Your task to perform on an android device: Go to Wikipedia Image 0: 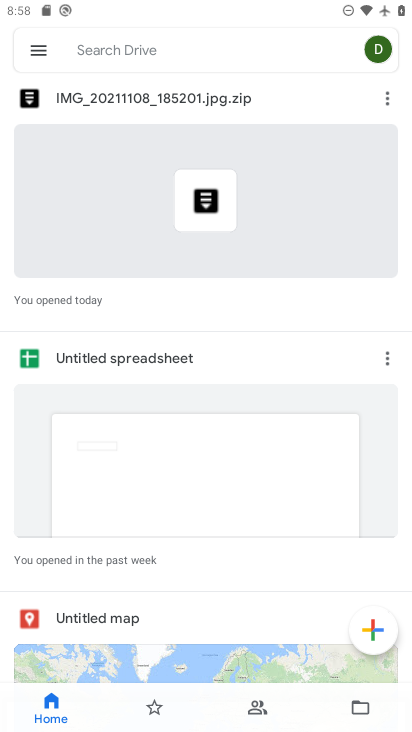
Step 0: press home button
Your task to perform on an android device: Go to Wikipedia Image 1: 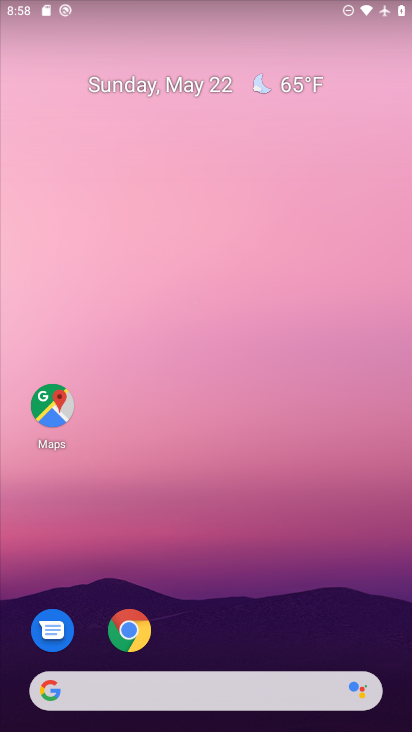
Step 1: click (138, 627)
Your task to perform on an android device: Go to Wikipedia Image 2: 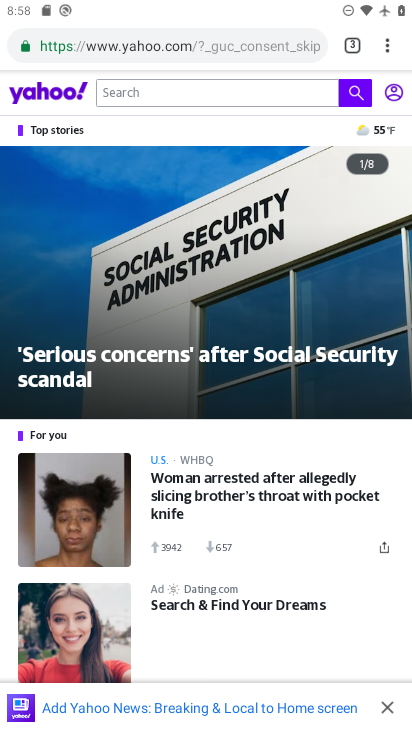
Step 2: drag from (387, 42) to (325, 93)
Your task to perform on an android device: Go to Wikipedia Image 3: 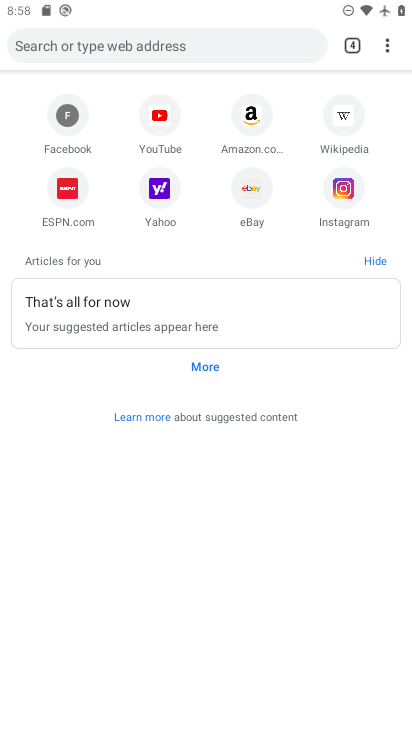
Step 3: click (341, 116)
Your task to perform on an android device: Go to Wikipedia Image 4: 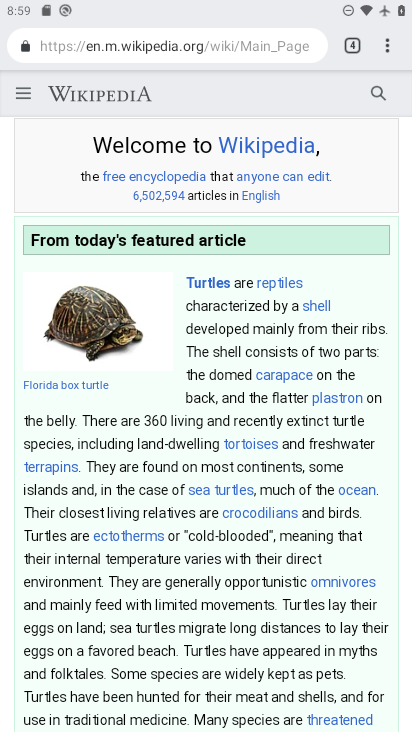
Step 4: task complete